Your task to perform on an android device: Go to Yahoo.com Image 0: 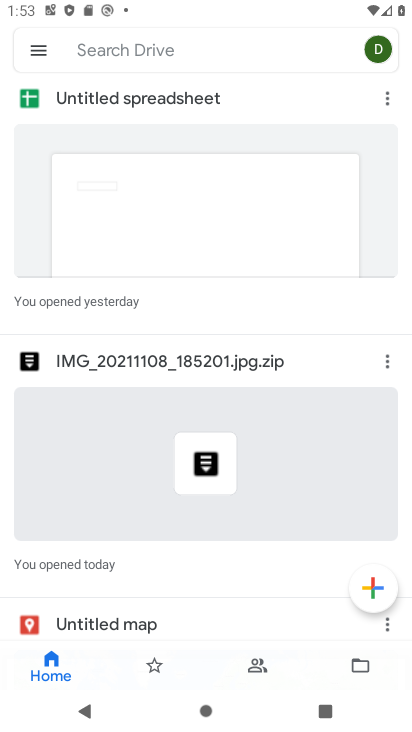
Step 0: press home button
Your task to perform on an android device: Go to Yahoo.com Image 1: 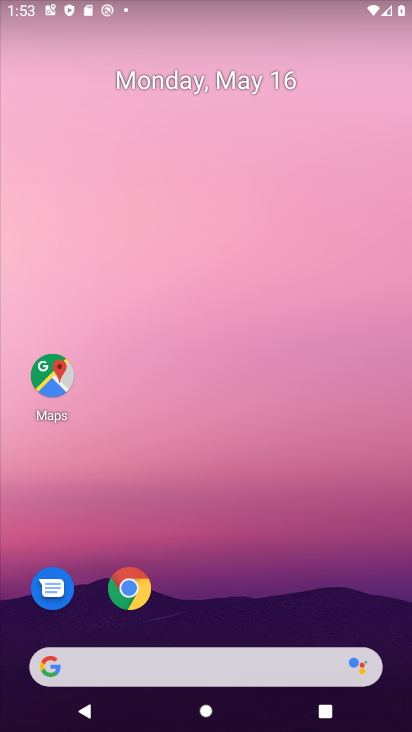
Step 1: click (131, 588)
Your task to perform on an android device: Go to Yahoo.com Image 2: 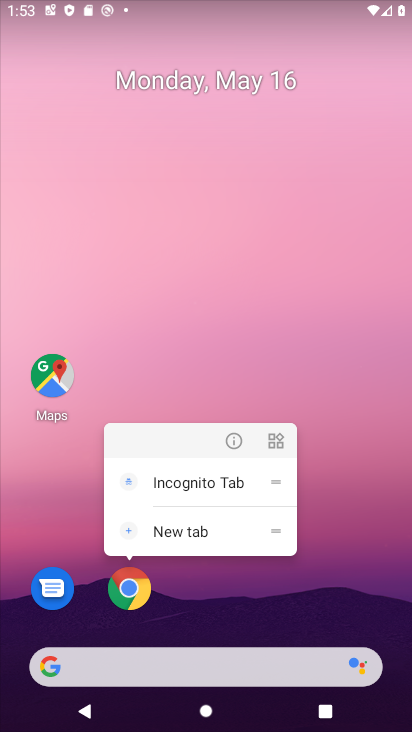
Step 2: click (127, 589)
Your task to perform on an android device: Go to Yahoo.com Image 3: 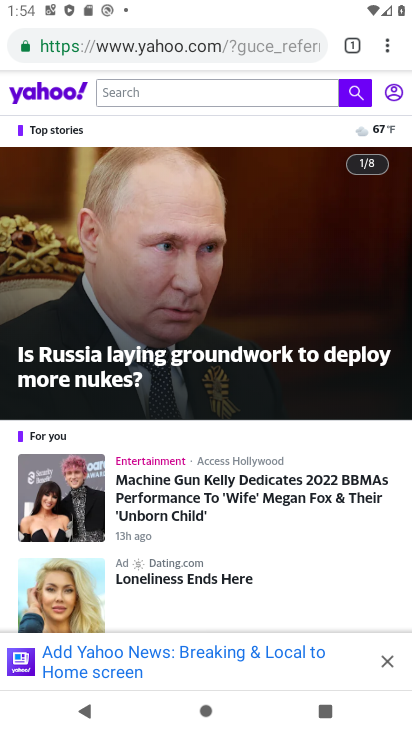
Step 3: task complete